Your task to perform on an android device: open app "Google Play services" Image 0: 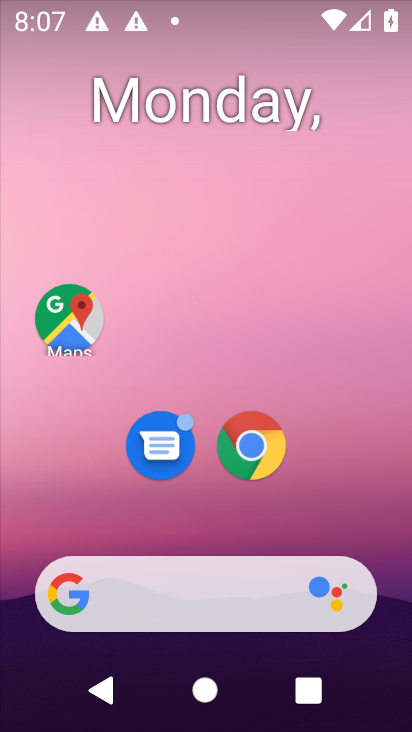
Step 0: drag from (386, 599) to (246, 108)
Your task to perform on an android device: open app "Google Play services" Image 1: 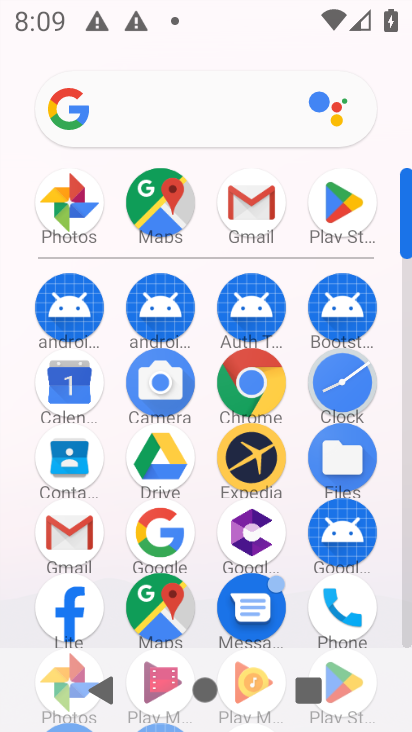
Step 1: click (339, 210)
Your task to perform on an android device: open app "Google Play services" Image 2: 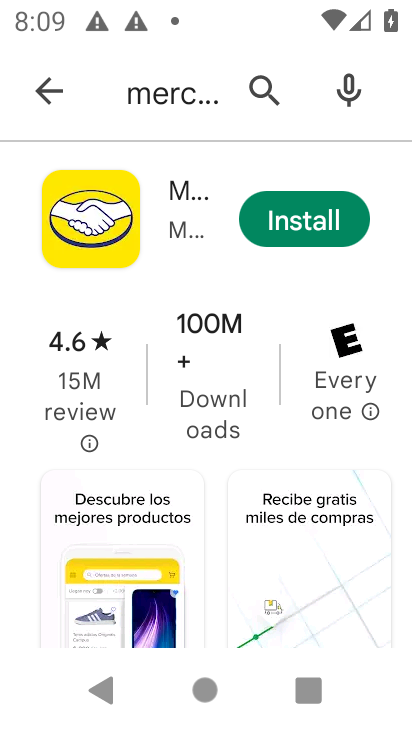
Step 2: press back button
Your task to perform on an android device: open app "Google Play services" Image 3: 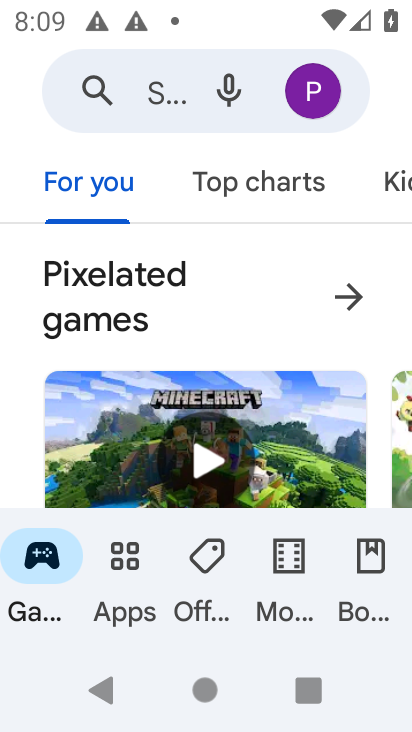
Step 3: click (146, 97)
Your task to perform on an android device: open app "Google Play services" Image 4: 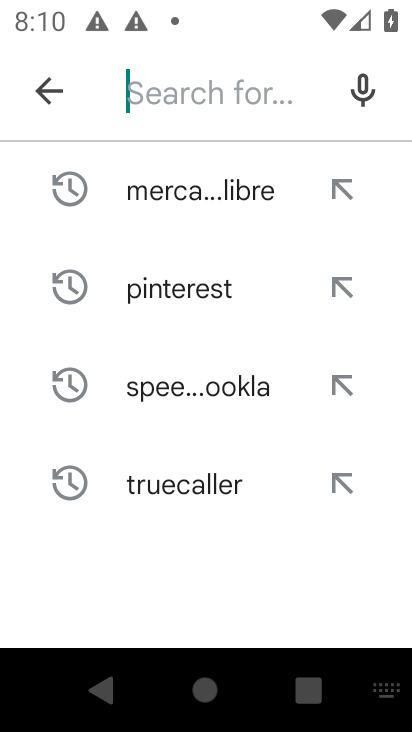
Step 4: type "Google Play services"
Your task to perform on an android device: open app "Google Play services" Image 5: 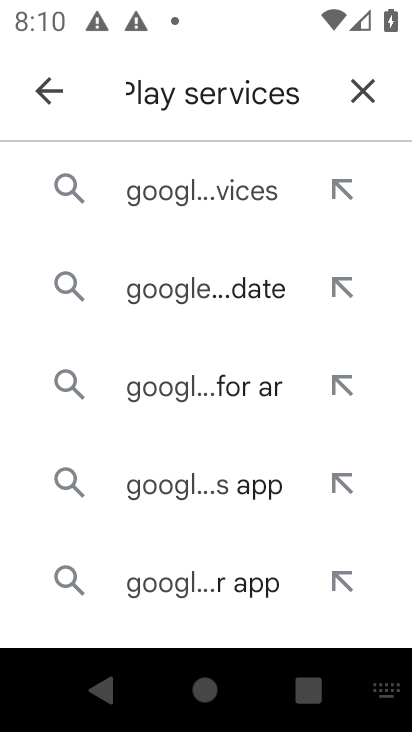
Step 5: click (194, 210)
Your task to perform on an android device: open app "Google Play services" Image 6: 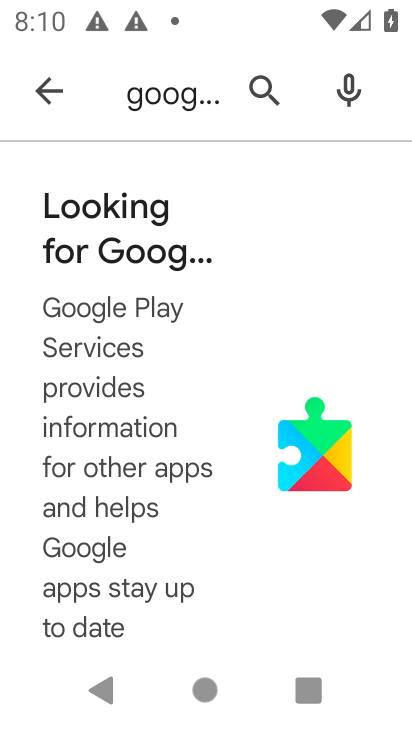
Step 6: task complete